Your task to perform on an android device: delete a single message in the gmail app Image 0: 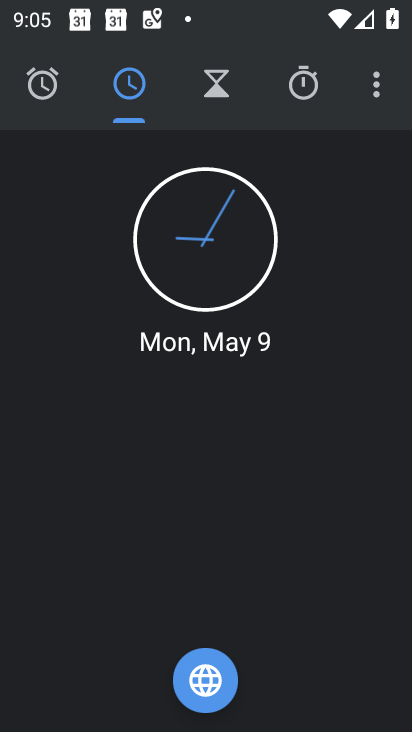
Step 0: press home button
Your task to perform on an android device: delete a single message in the gmail app Image 1: 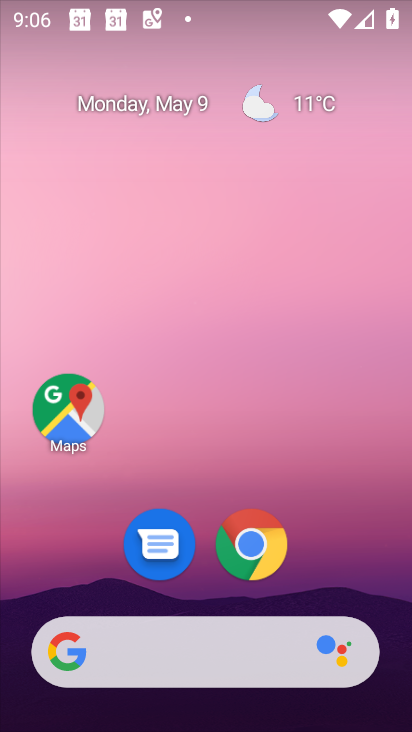
Step 1: drag from (403, 482) to (372, 189)
Your task to perform on an android device: delete a single message in the gmail app Image 2: 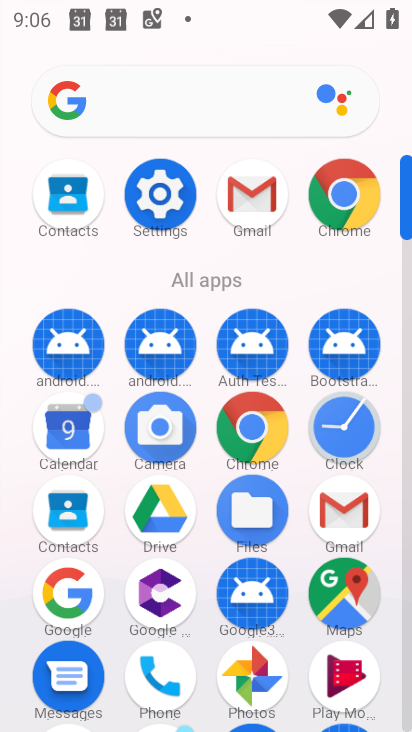
Step 2: click (348, 511)
Your task to perform on an android device: delete a single message in the gmail app Image 3: 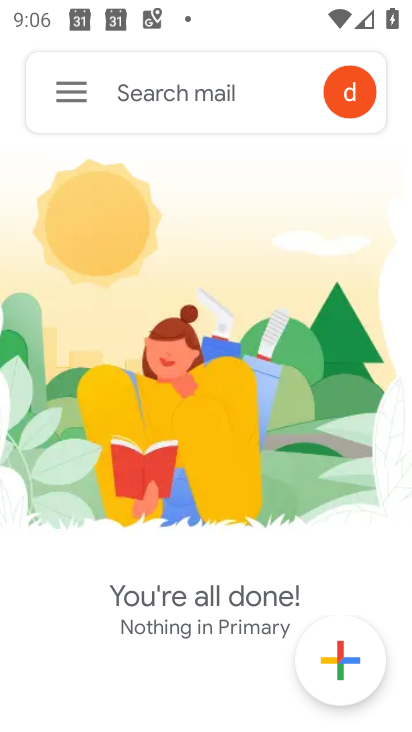
Step 3: click (68, 96)
Your task to perform on an android device: delete a single message in the gmail app Image 4: 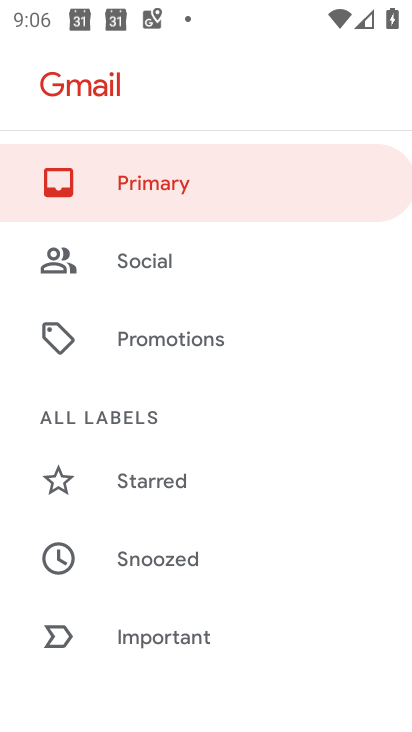
Step 4: click (128, 187)
Your task to perform on an android device: delete a single message in the gmail app Image 5: 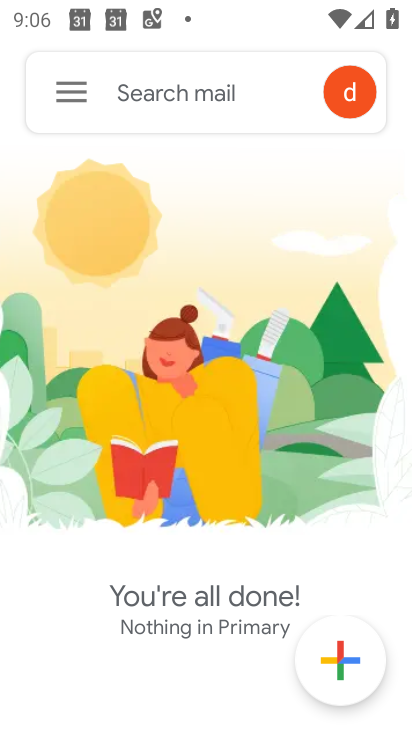
Step 5: task complete